Your task to perform on an android device: change keyboard looks Image 0: 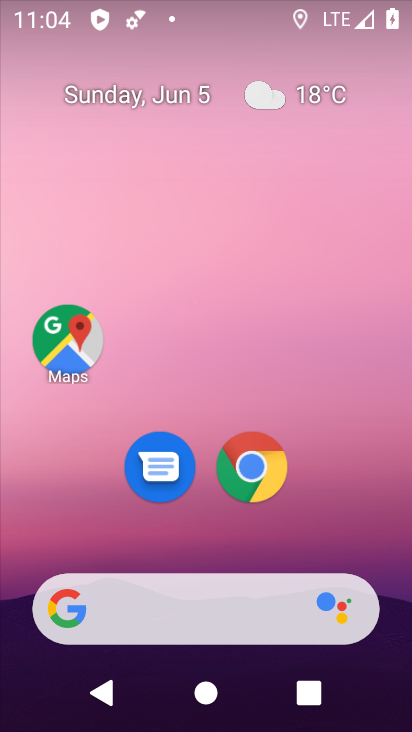
Step 0: drag from (200, 544) to (163, 16)
Your task to perform on an android device: change keyboard looks Image 1: 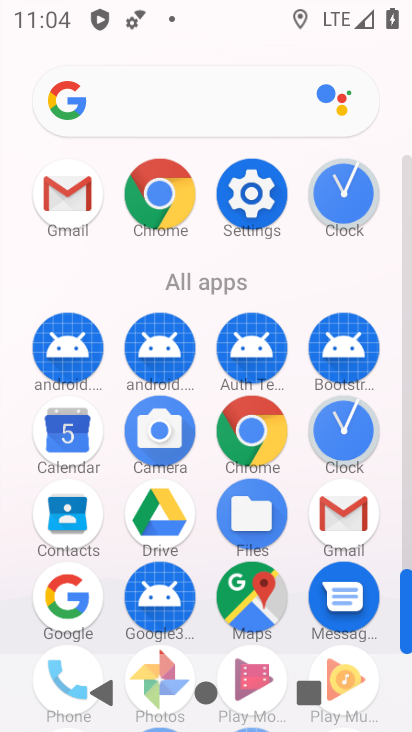
Step 1: click (252, 203)
Your task to perform on an android device: change keyboard looks Image 2: 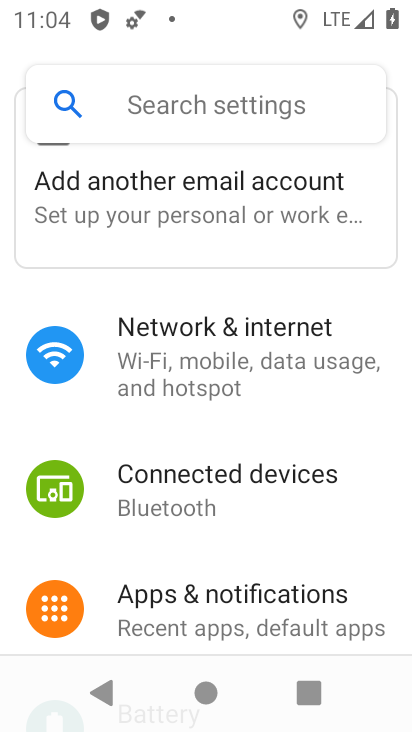
Step 2: drag from (315, 625) to (261, 155)
Your task to perform on an android device: change keyboard looks Image 3: 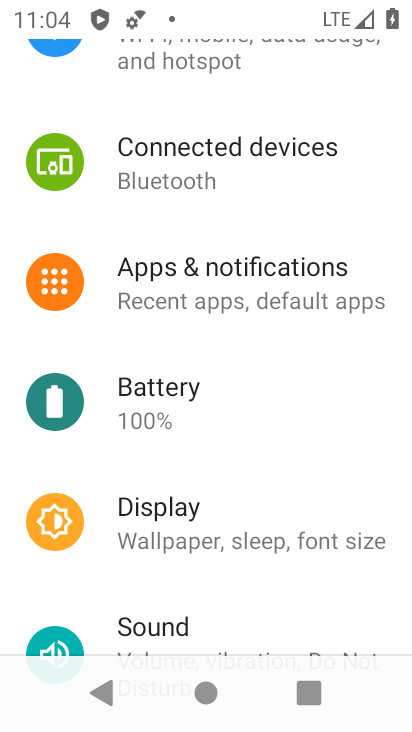
Step 3: drag from (255, 536) to (183, 26)
Your task to perform on an android device: change keyboard looks Image 4: 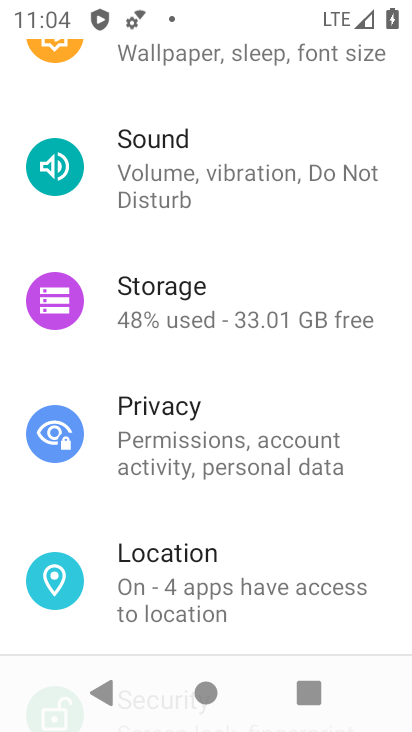
Step 4: drag from (235, 503) to (169, 106)
Your task to perform on an android device: change keyboard looks Image 5: 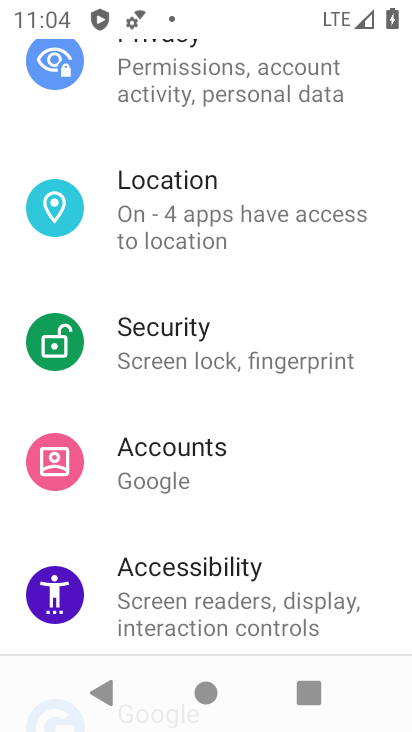
Step 5: drag from (169, 590) to (130, 262)
Your task to perform on an android device: change keyboard looks Image 6: 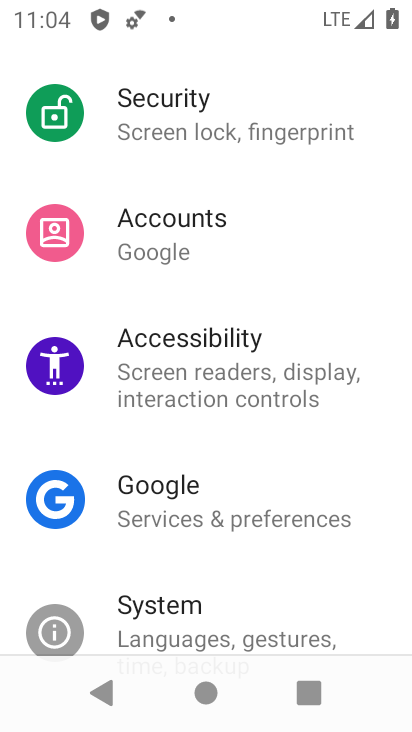
Step 6: click (173, 642)
Your task to perform on an android device: change keyboard looks Image 7: 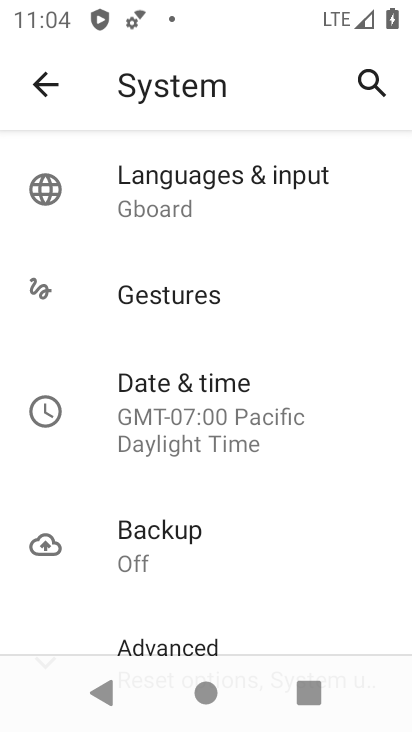
Step 7: click (150, 225)
Your task to perform on an android device: change keyboard looks Image 8: 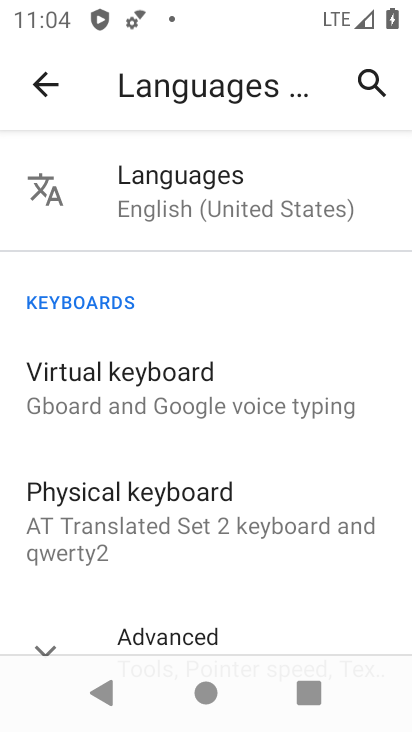
Step 8: click (187, 381)
Your task to perform on an android device: change keyboard looks Image 9: 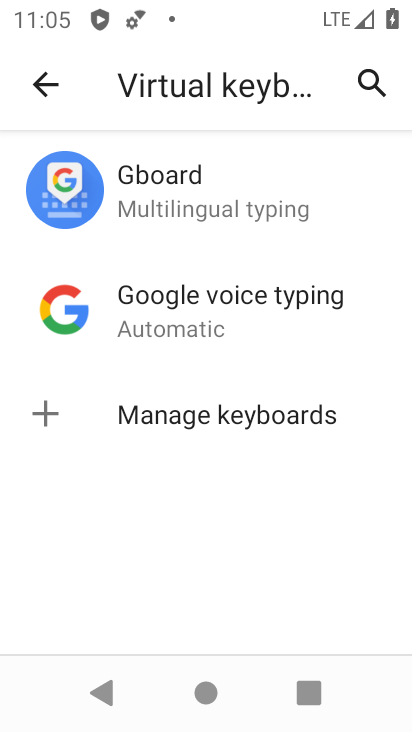
Step 9: click (148, 192)
Your task to perform on an android device: change keyboard looks Image 10: 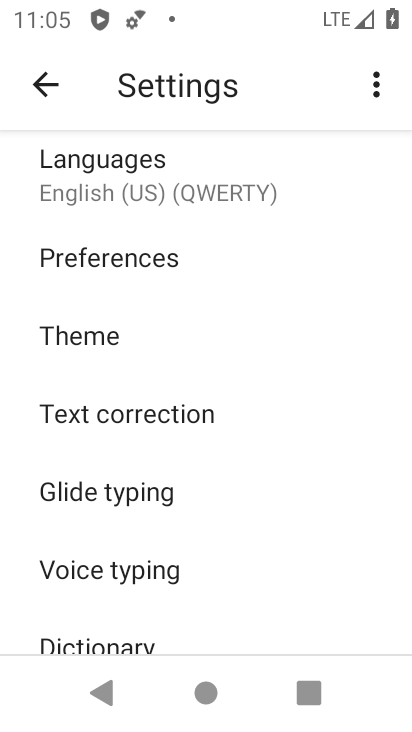
Step 10: click (90, 319)
Your task to perform on an android device: change keyboard looks Image 11: 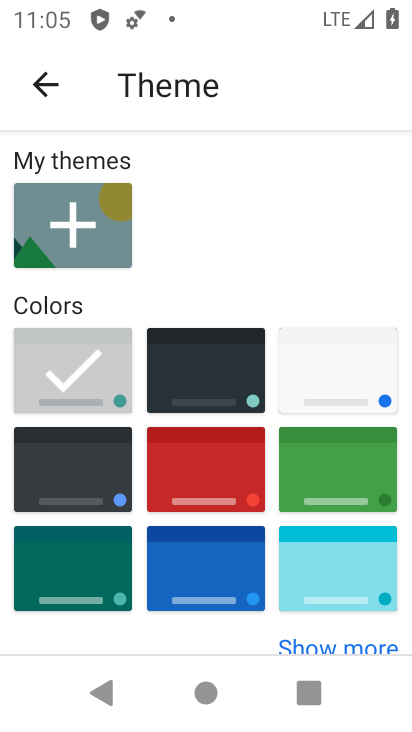
Step 11: click (170, 368)
Your task to perform on an android device: change keyboard looks Image 12: 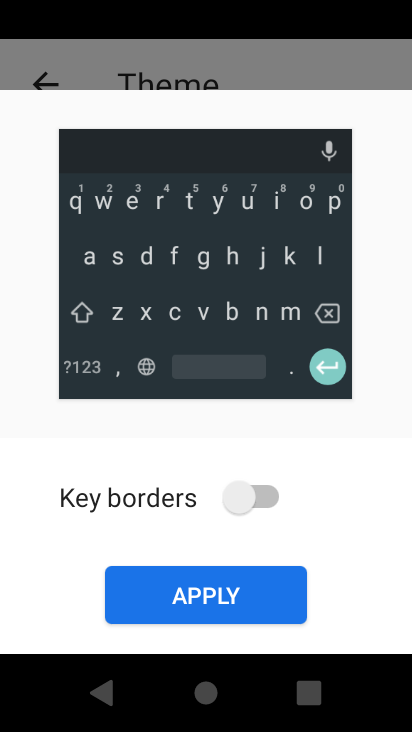
Step 12: click (180, 570)
Your task to perform on an android device: change keyboard looks Image 13: 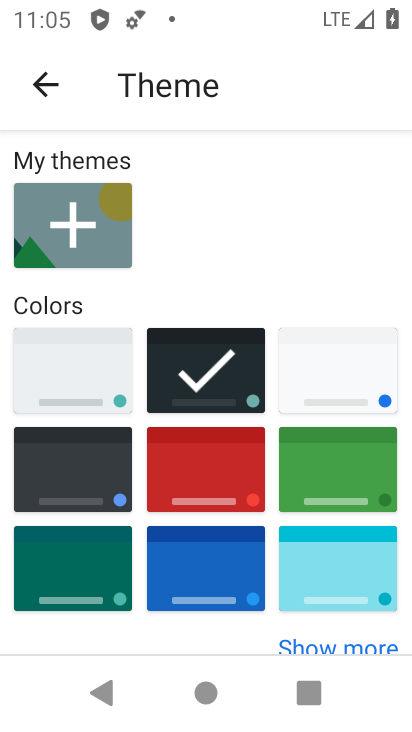
Step 13: task complete